Your task to perform on an android device: turn on javascript in the chrome app Image 0: 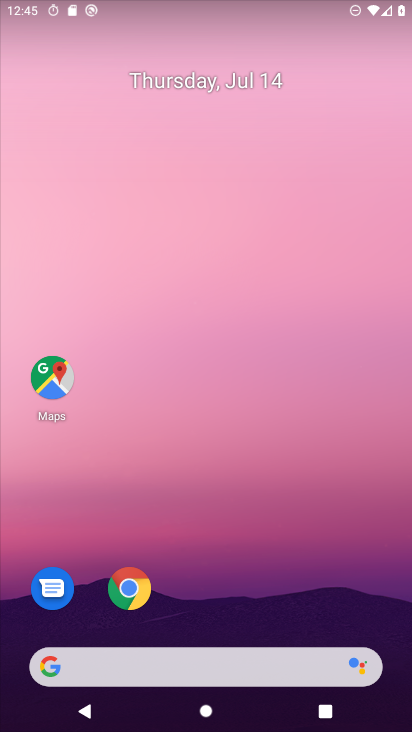
Step 0: click (129, 590)
Your task to perform on an android device: turn on javascript in the chrome app Image 1: 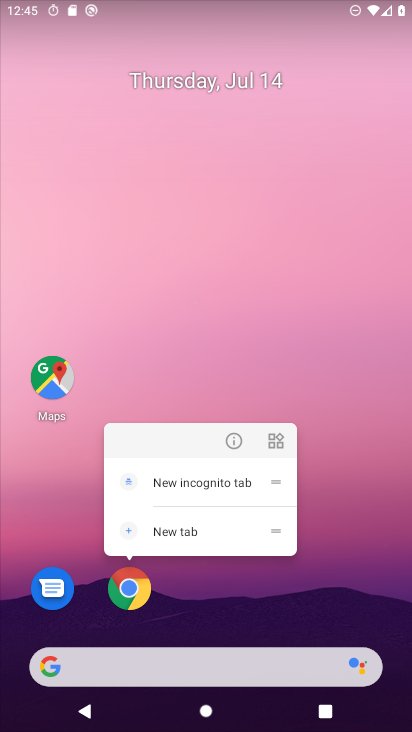
Step 1: click (137, 591)
Your task to perform on an android device: turn on javascript in the chrome app Image 2: 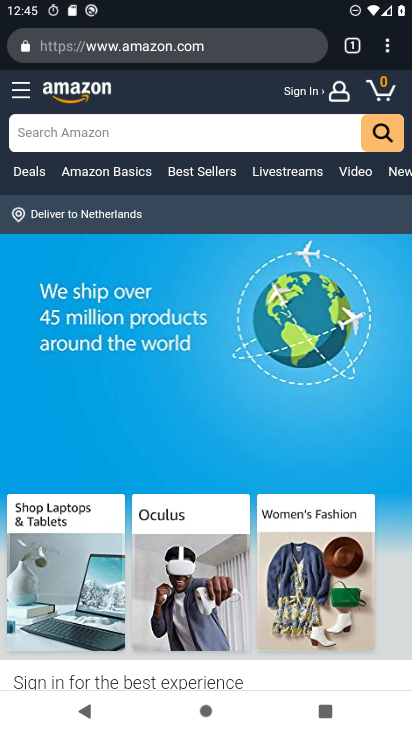
Step 2: drag from (389, 52) to (272, 576)
Your task to perform on an android device: turn on javascript in the chrome app Image 3: 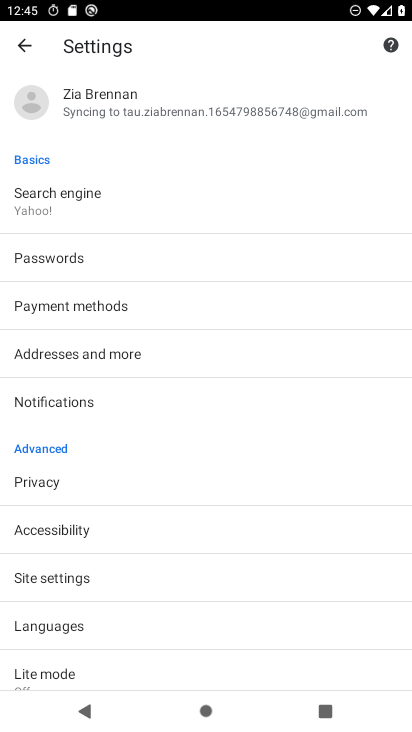
Step 3: click (68, 575)
Your task to perform on an android device: turn on javascript in the chrome app Image 4: 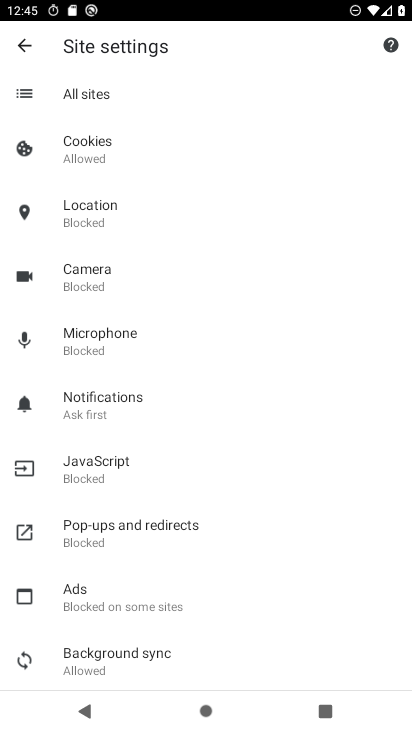
Step 4: click (98, 474)
Your task to perform on an android device: turn on javascript in the chrome app Image 5: 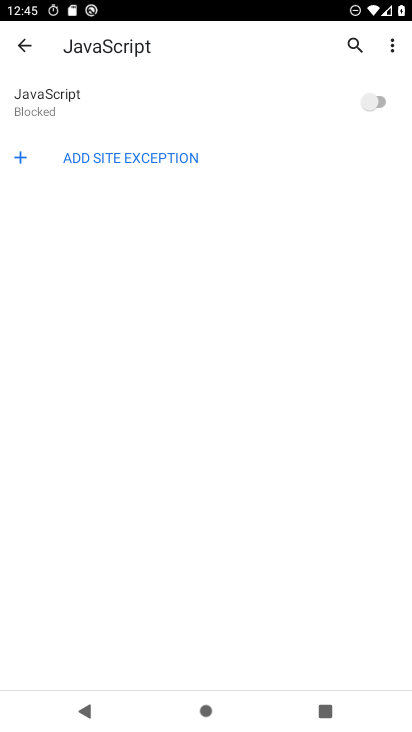
Step 5: click (382, 100)
Your task to perform on an android device: turn on javascript in the chrome app Image 6: 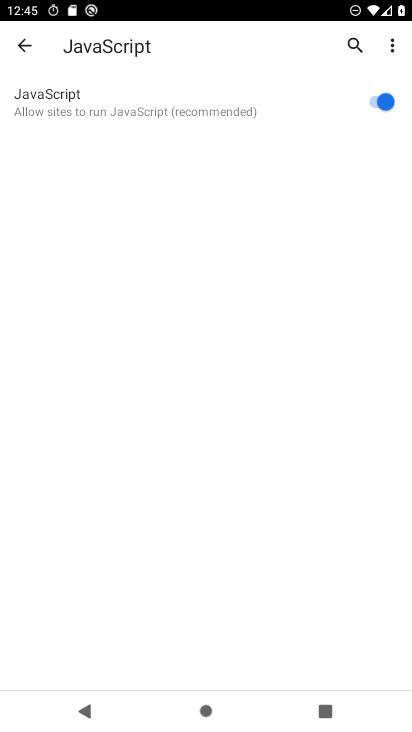
Step 6: task complete